Your task to perform on an android device: turn on location history Image 0: 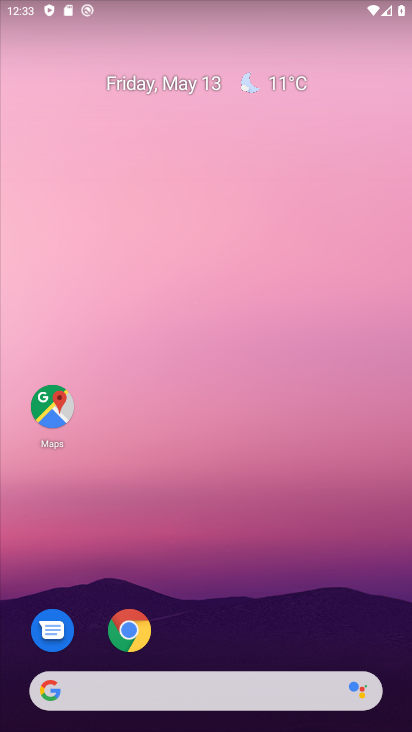
Step 0: click (45, 413)
Your task to perform on an android device: turn on location history Image 1: 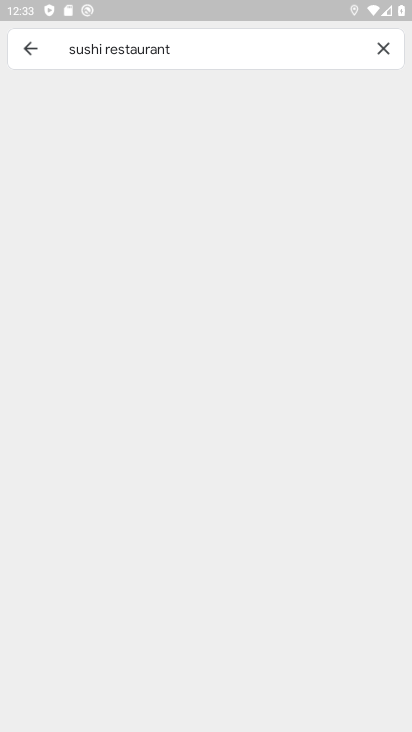
Step 1: click (30, 50)
Your task to perform on an android device: turn on location history Image 2: 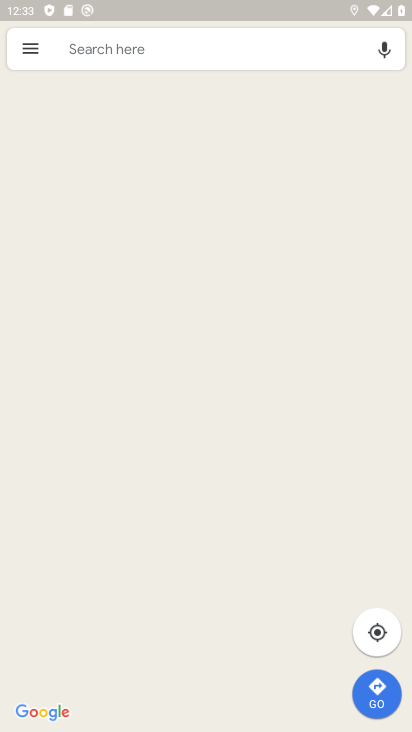
Step 2: click (30, 50)
Your task to perform on an android device: turn on location history Image 3: 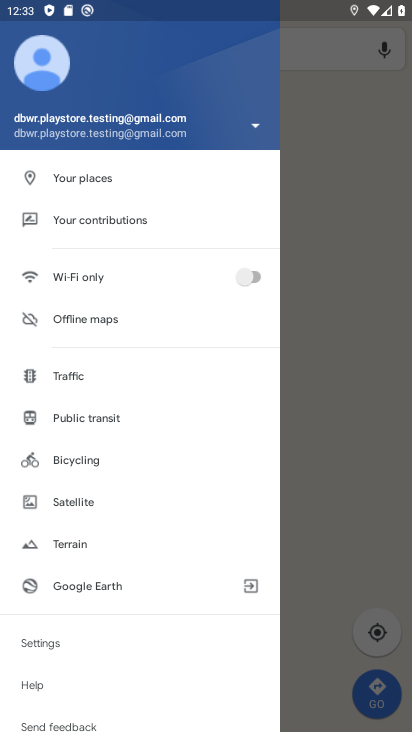
Step 3: task complete